Your task to perform on an android device: Go to display settings Image 0: 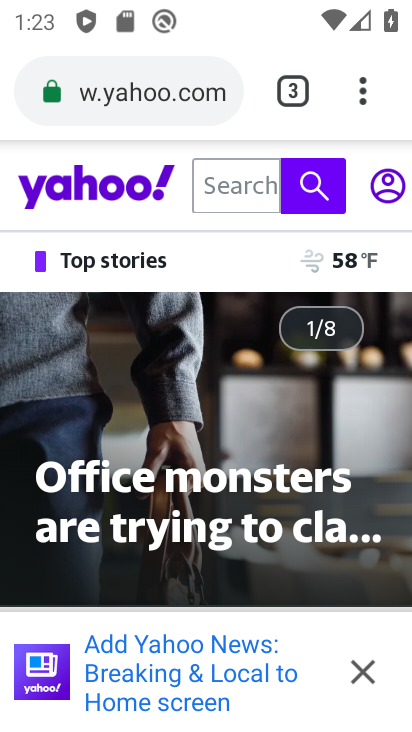
Step 0: press home button
Your task to perform on an android device: Go to display settings Image 1: 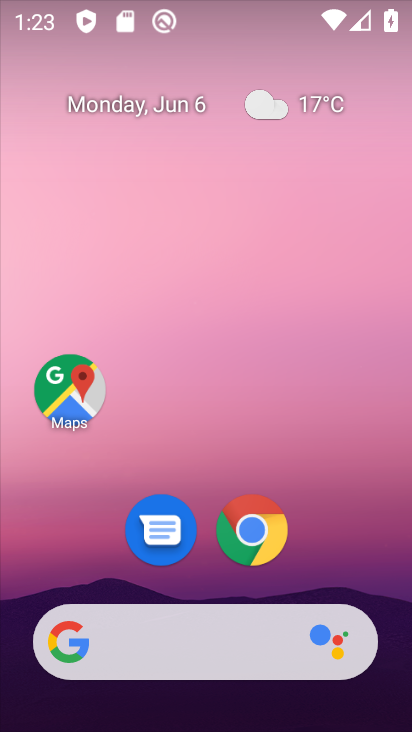
Step 1: drag from (308, 554) to (271, 250)
Your task to perform on an android device: Go to display settings Image 2: 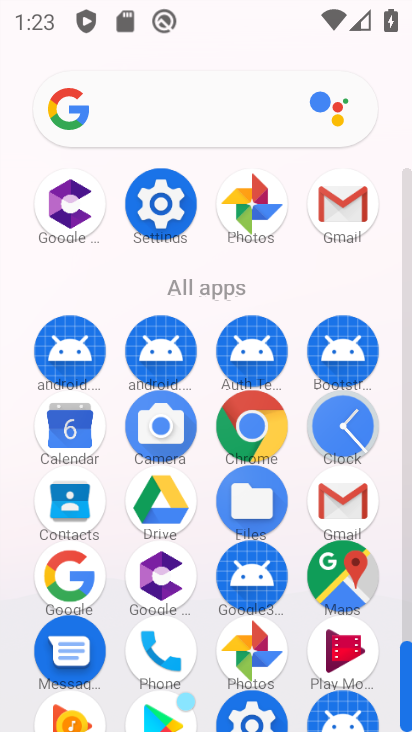
Step 2: click (150, 225)
Your task to perform on an android device: Go to display settings Image 3: 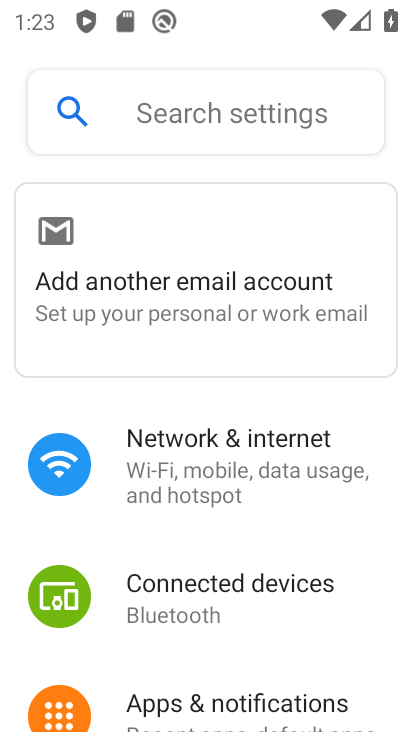
Step 3: drag from (224, 591) to (225, 292)
Your task to perform on an android device: Go to display settings Image 4: 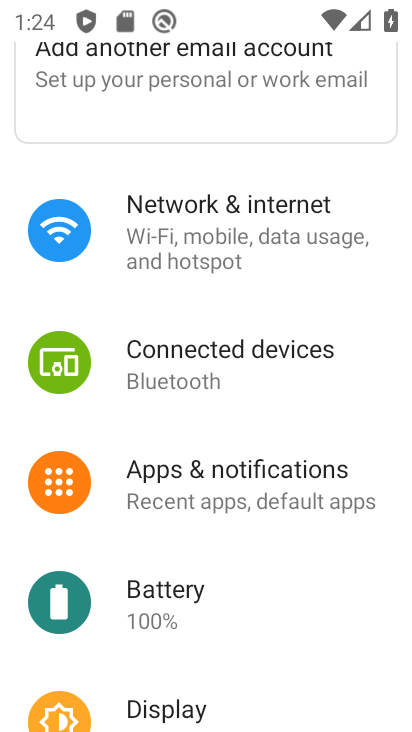
Step 4: click (165, 709)
Your task to perform on an android device: Go to display settings Image 5: 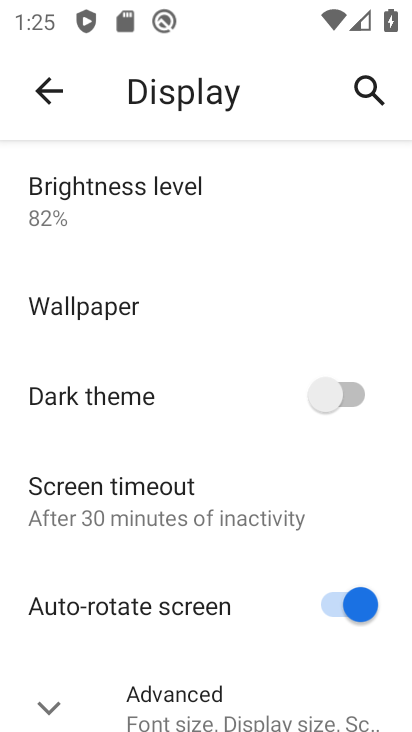
Step 5: task complete